Your task to perform on an android device: turn off smart reply in the gmail app Image 0: 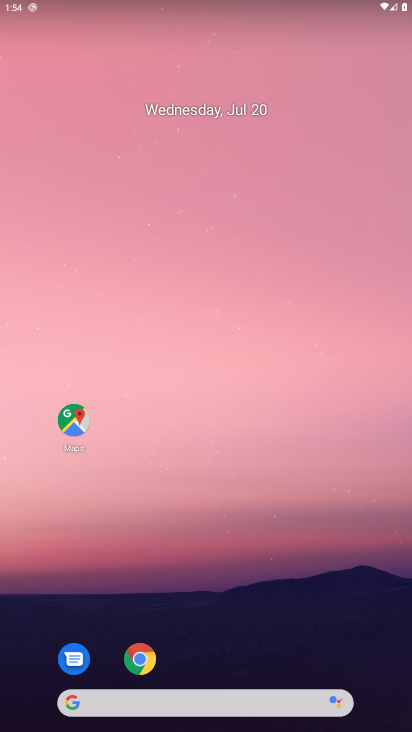
Step 0: click (283, 91)
Your task to perform on an android device: turn off smart reply in the gmail app Image 1: 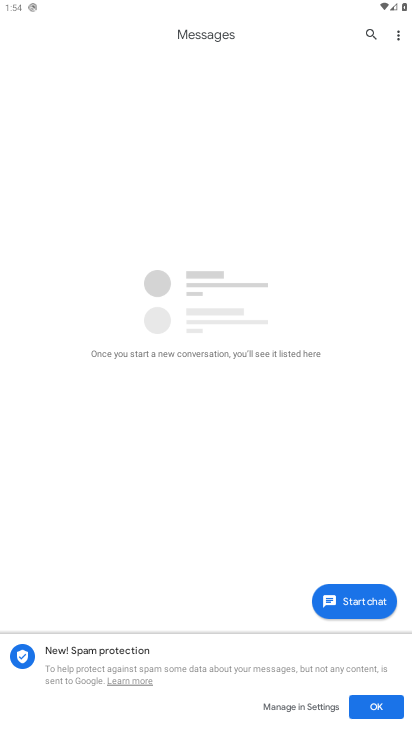
Step 1: press home button
Your task to perform on an android device: turn off smart reply in the gmail app Image 2: 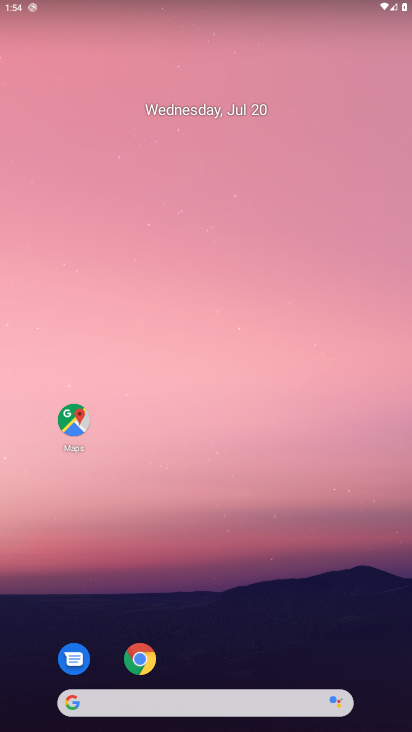
Step 2: drag from (33, 692) to (188, 277)
Your task to perform on an android device: turn off smart reply in the gmail app Image 3: 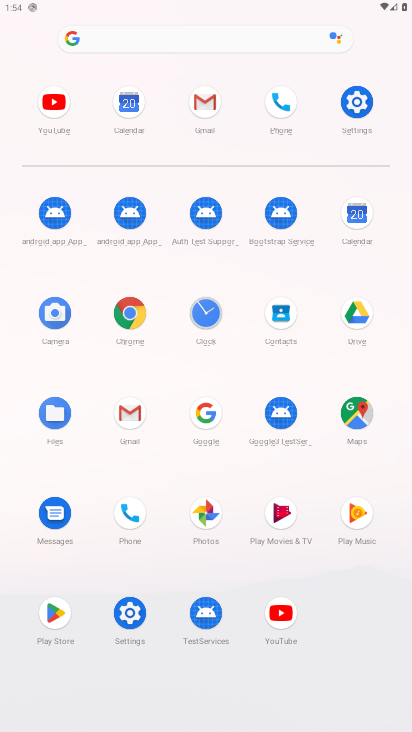
Step 3: click (130, 435)
Your task to perform on an android device: turn off smart reply in the gmail app Image 4: 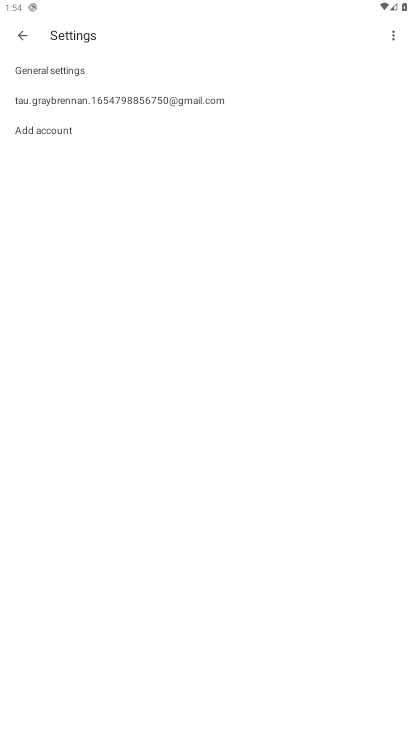
Step 4: click (23, 35)
Your task to perform on an android device: turn off smart reply in the gmail app Image 5: 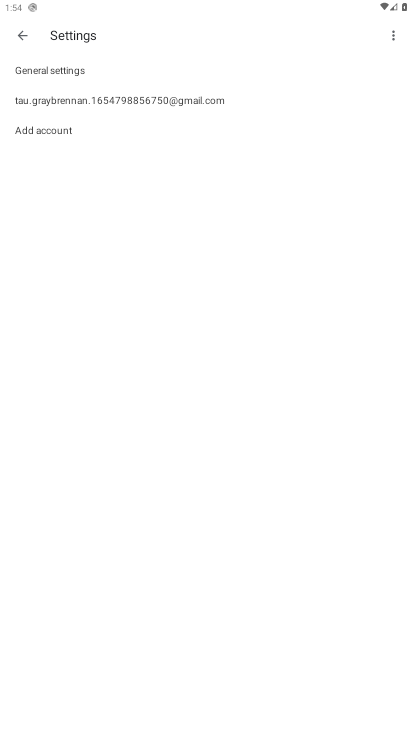
Step 5: click (21, 34)
Your task to perform on an android device: turn off smart reply in the gmail app Image 6: 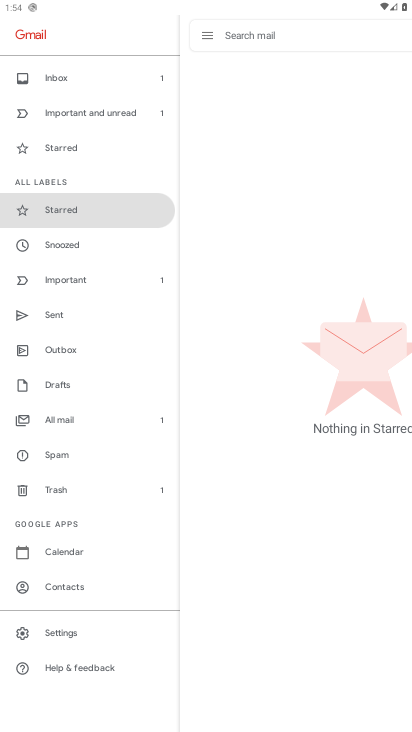
Step 6: click (65, 632)
Your task to perform on an android device: turn off smart reply in the gmail app Image 7: 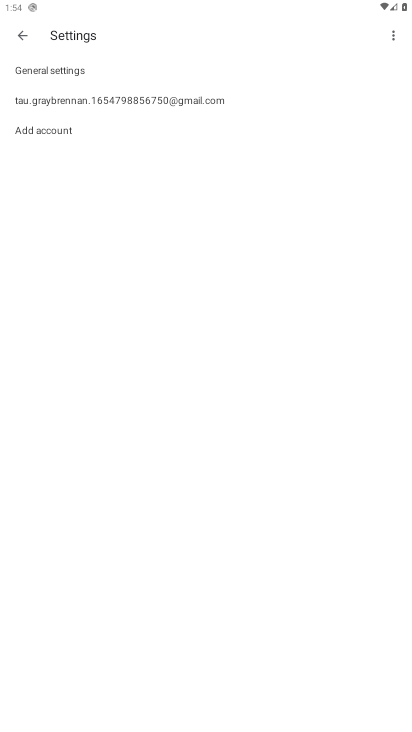
Step 7: click (101, 96)
Your task to perform on an android device: turn off smart reply in the gmail app Image 8: 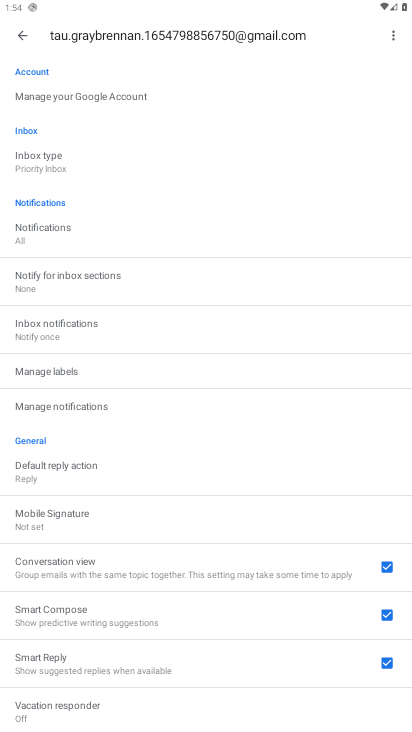
Step 8: click (394, 666)
Your task to perform on an android device: turn off smart reply in the gmail app Image 9: 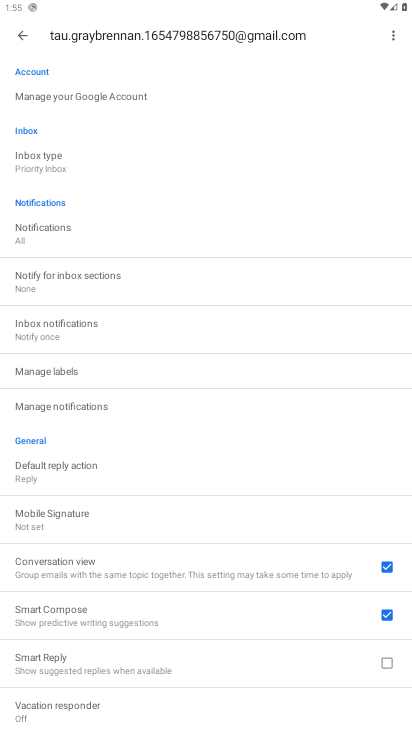
Step 9: task complete